Your task to perform on an android device: check android version Image 0: 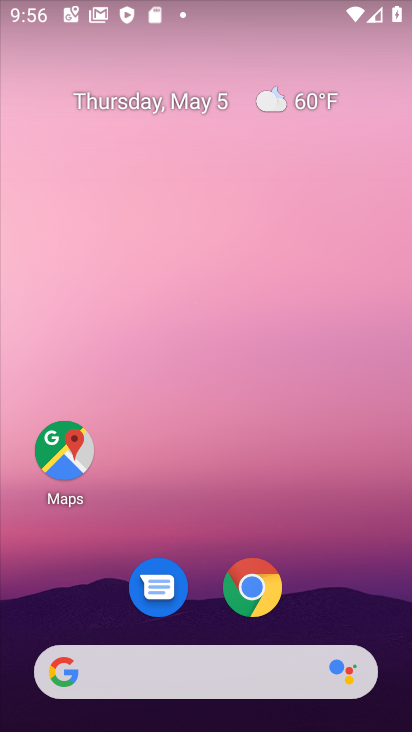
Step 0: drag from (91, 607) to (227, 0)
Your task to perform on an android device: check android version Image 1: 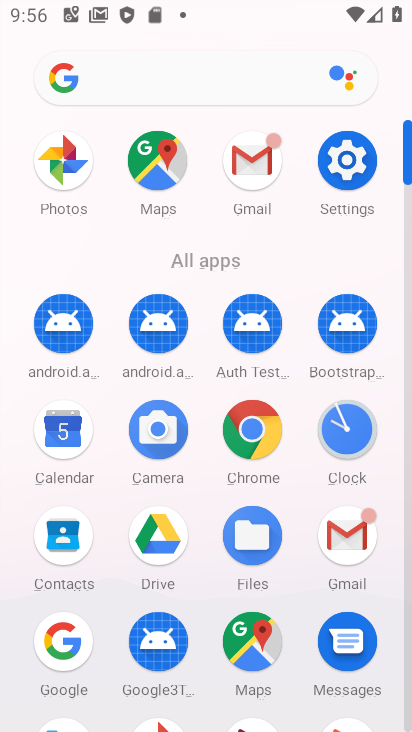
Step 1: drag from (188, 656) to (286, 287)
Your task to perform on an android device: check android version Image 2: 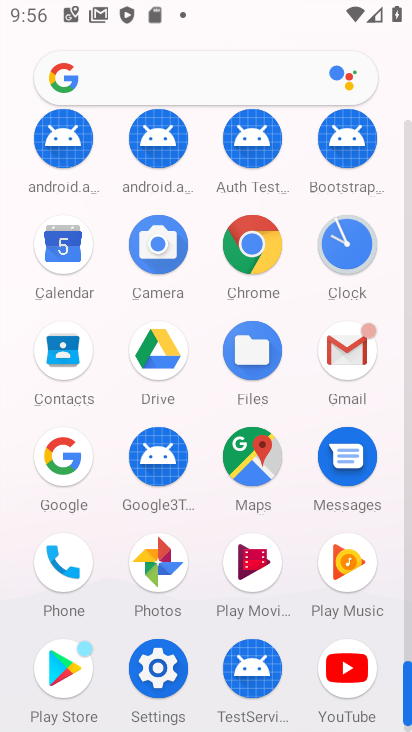
Step 2: click (171, 670)
Your task to perform on an android device: check android version Image 3: 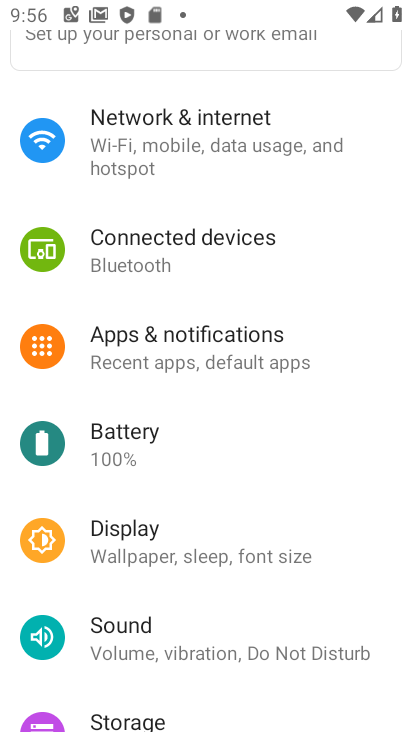
Step 3: drag from (107, 688) to (239, 107)
Your task to perform on an android device: check android version Image 4: 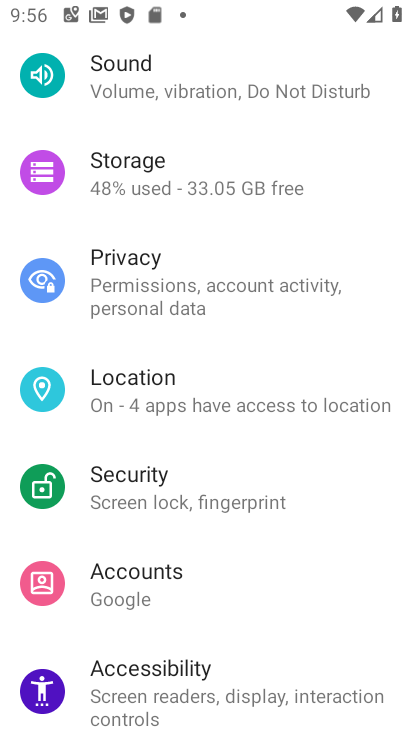
Step 4: drag from (120, 645) to (266, 139)
Your task to perform on an android device: check android version Image 5: 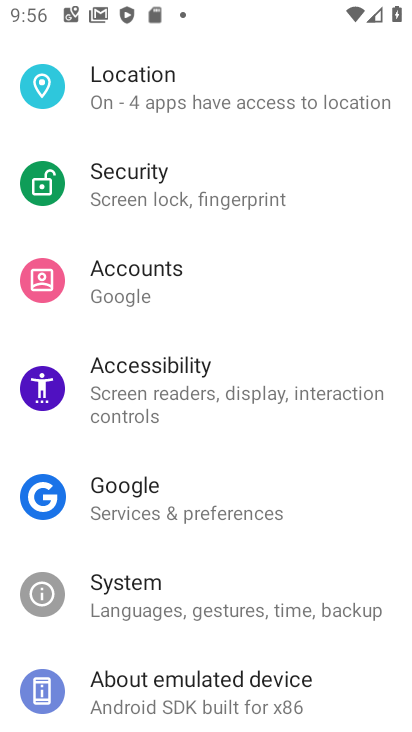
Step 5: click (211, 697)
Your task to perform on an android device: check android version Image 6: 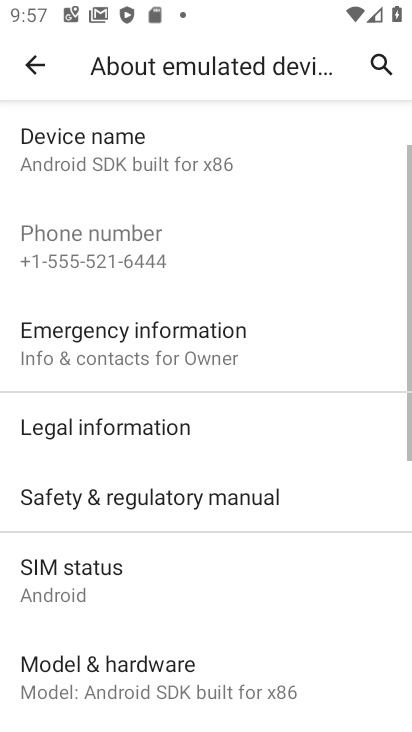
Step 6: drag from (151, 639) to (240, 270)
Your task to perform on an android device: check android version Image 7: 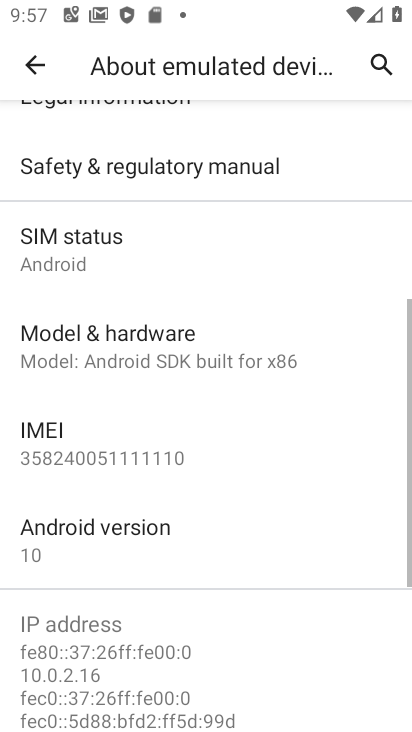
Step 7: click (125, 547)
Your task to perform on an android device: check android version Image 8: 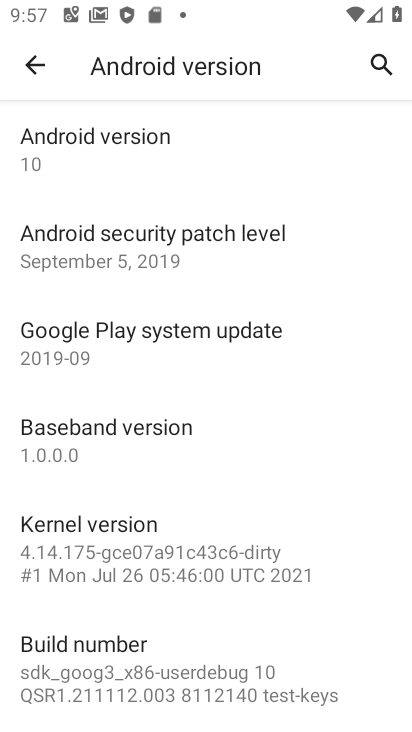
Step 8: task complete